Your task to perform on an android device: Open the calendar app, open the side menu, and click the "Day" option Image 0: 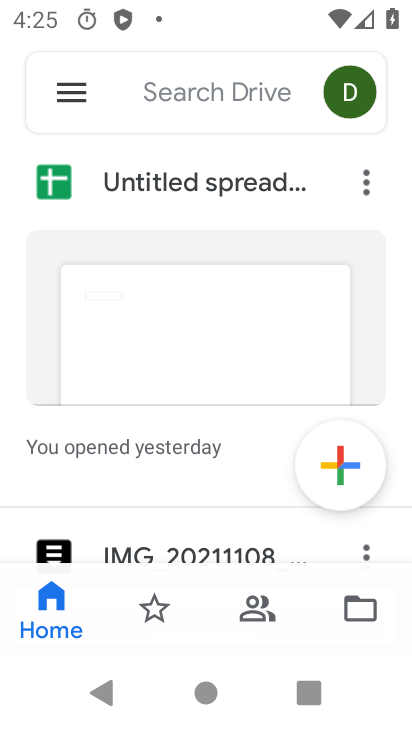
Step 0: press home button
Your task to perform on an android device: Open the calendar app, open the side menu, and click the "Day" option Image 1: 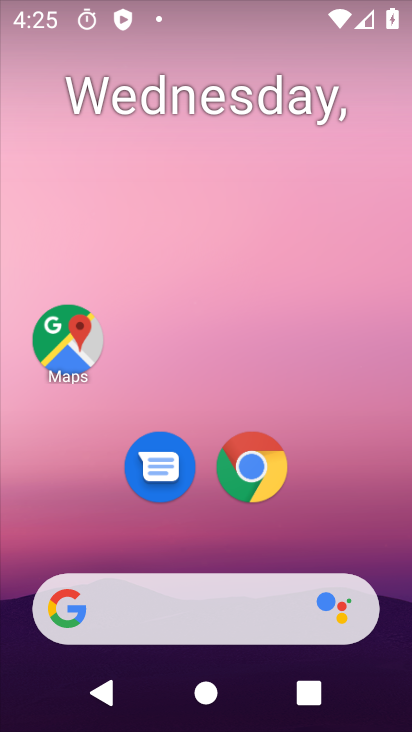
Step 1: drag from (398, 624) to (407, 37)
Your task to perform on an android device: Open the calendar app, open the side menu, and click the "Day" option Image 2: 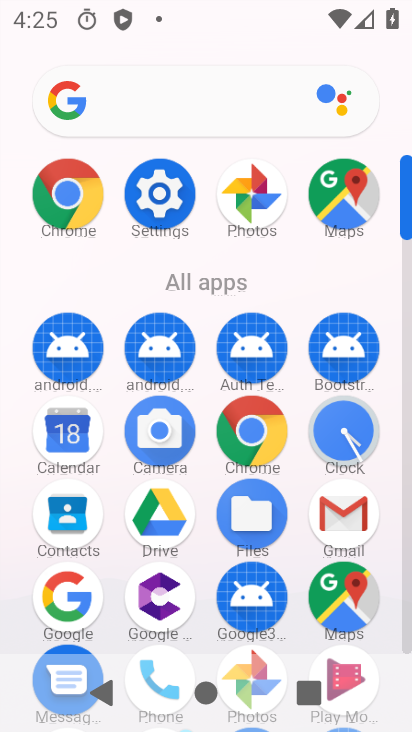
Step 2: click (68, 438)
Your task to perform on an android device: Open the calendar app, open the side menu, and click the "Day" option Image 3: 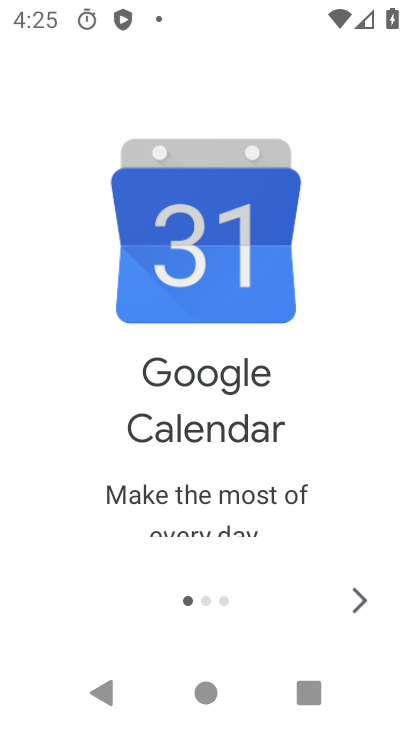
Step 3: click (366, 600)
Your task to perform on an android device: Open the calendar app, open the side menu, and click the "Day" option Image 4: 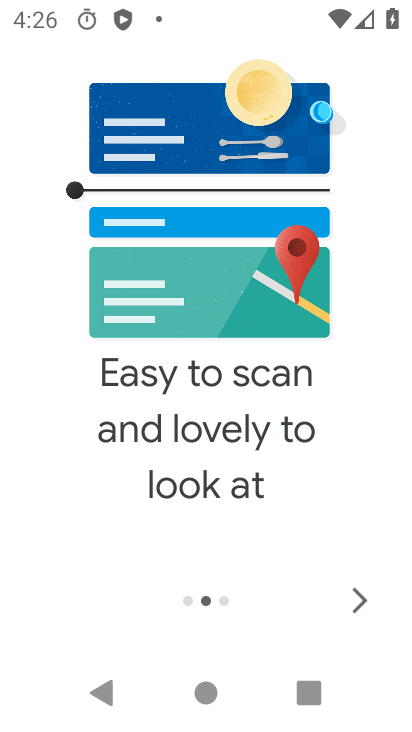
Step 4: click (356, 598)
Your task to perform on an android device: Open the calendar app, open the side menu, and click the "Day" option Image 5: 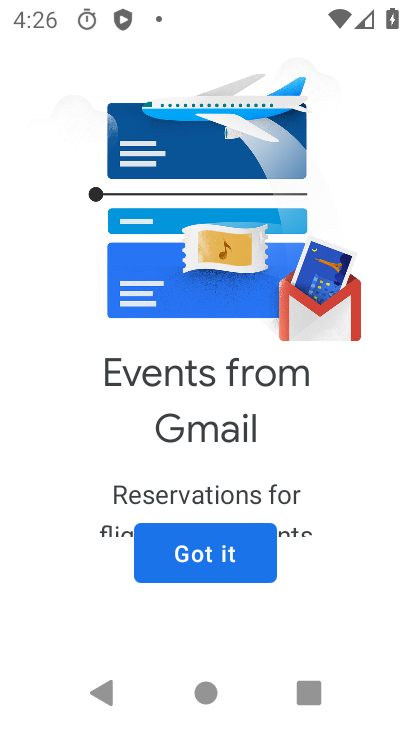
Step 5: click (203, 549)
Your task to perform on an android device: Open the calendar app, open the side menu, and click the "Day" option Image 6: 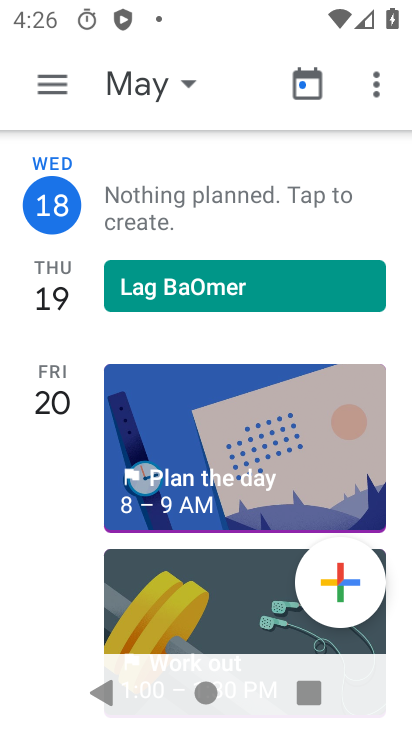
Step 6: click (49, 88)
Your task to perform on an android device: Open the calendar app, open the side menu, and click the "Day" option Image 7: 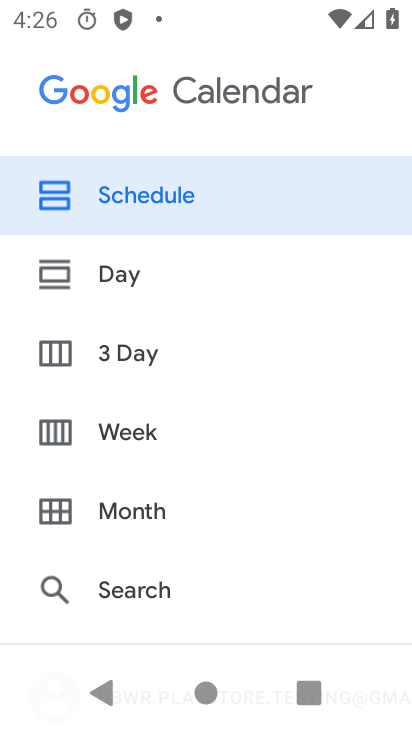
Step 7: click (103, 276)
Your task to perform on an android device: Open the calendar app, open the side menu, and click the "Day" option Image 8: 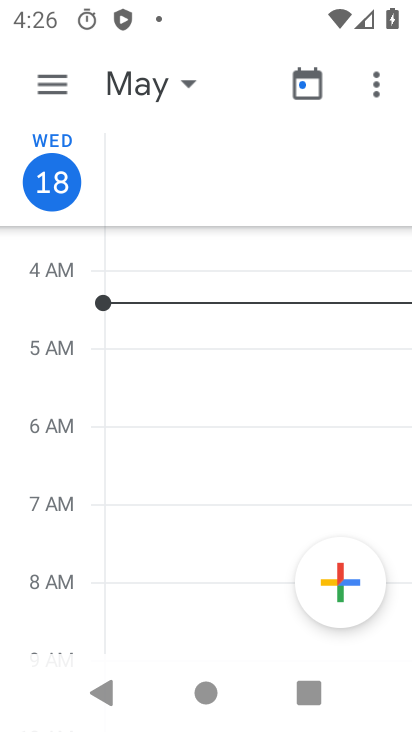
Step 8: task complete